Your task to perform on an android device: Do I have any events this weekend? Image 0: 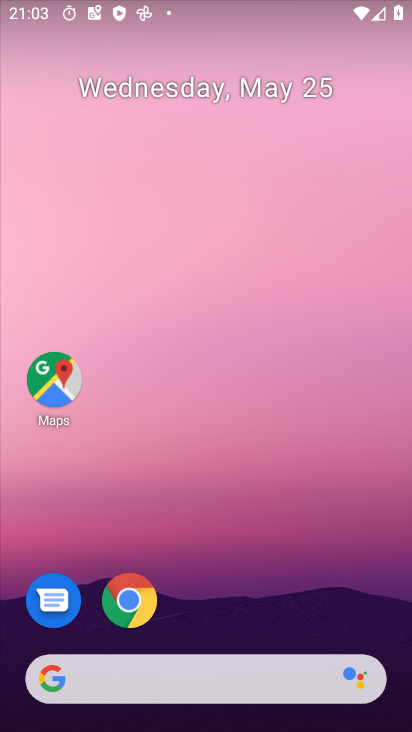
Step 0: drag from (348, 608) to (308, 237)
Your task to perform on an android device: Do I have any events this weekend? Image 1: 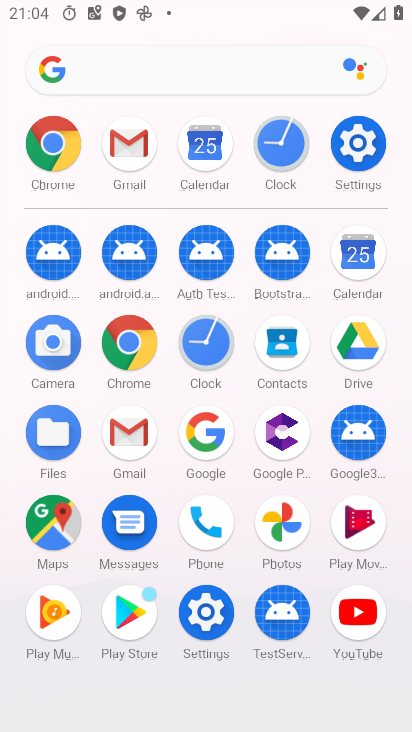
Step 1: click (363, 265)
Your task to perform on an android device: Do I have any events this weekend? Image 2: 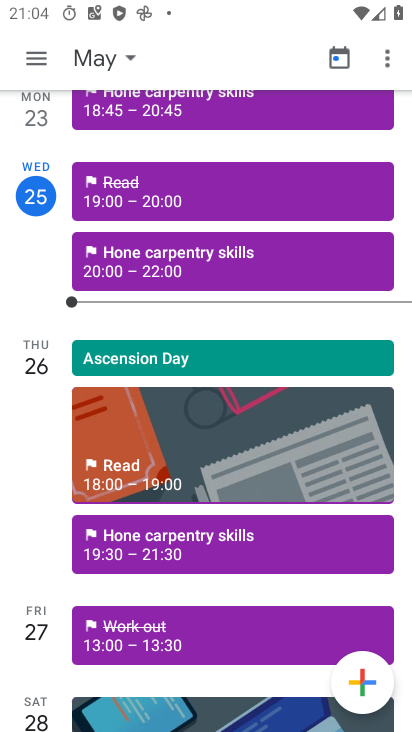
Step 2: task complete